Your task to perform on an android device: turn notification dots off Image 0: 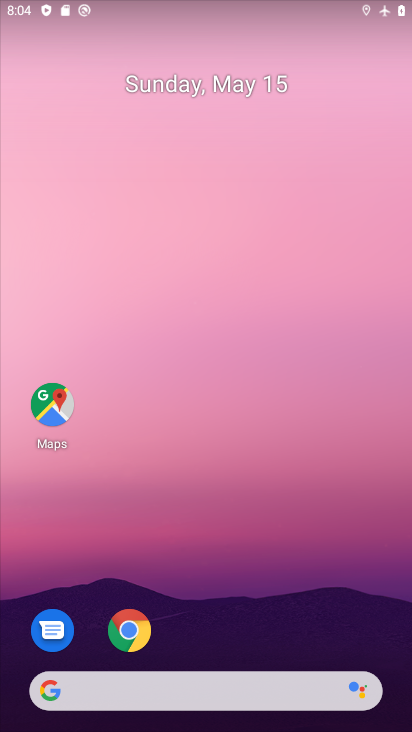
Step 0: drag from (228, 631) to (312, 104)
Your task to perform on an android device: turn notification dots off Image 1: 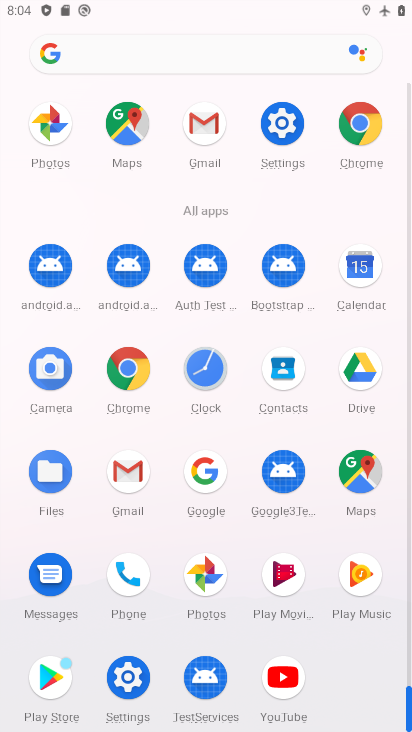
Step 1: click (126, 685)
Your task to perform on an android device: turn notification dots off Image 2: 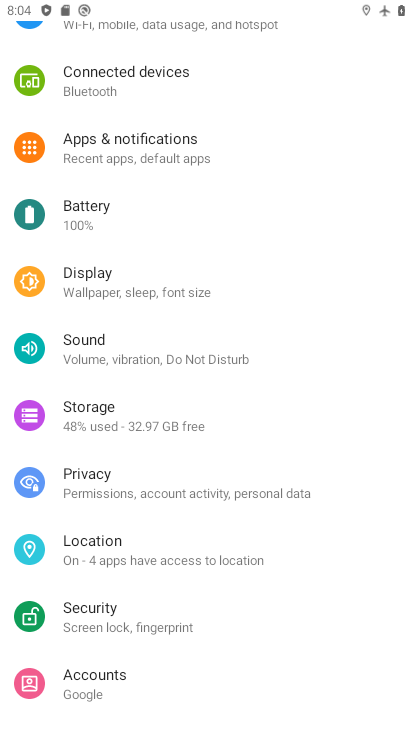
Step 2: click (141, 158)
Your task to perform on an android device: turn notification dots off Image 3: 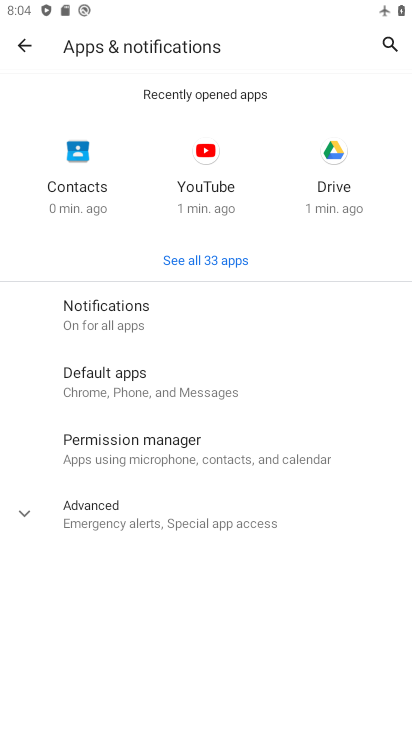
Step 3: click (118, 316)
Your task to perform on an android device: turn notification dots off Image 4: 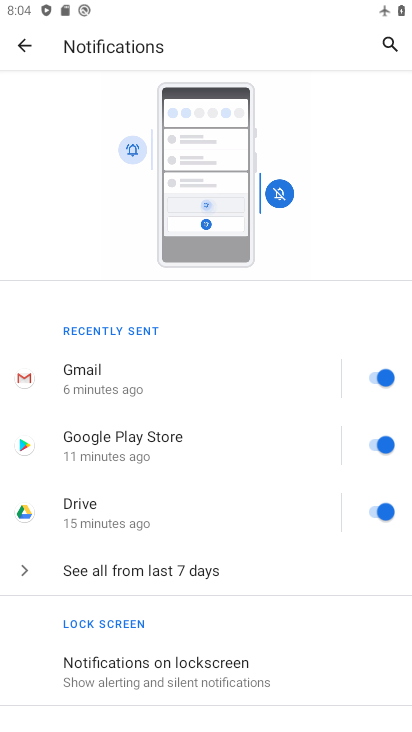
Step 4: drag from (147, 640) to (196, 322)
Your task to perform on an android device: turn notification dots off Image 5: 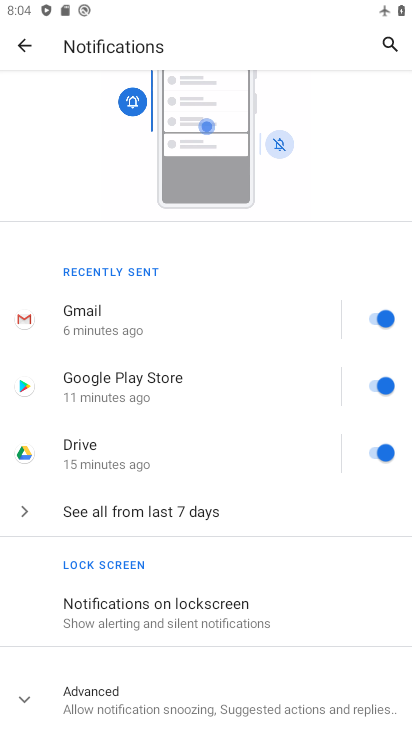
Step 5: click (97, 695)
Your task to perform on an android device: turn notification dots off Image 6: 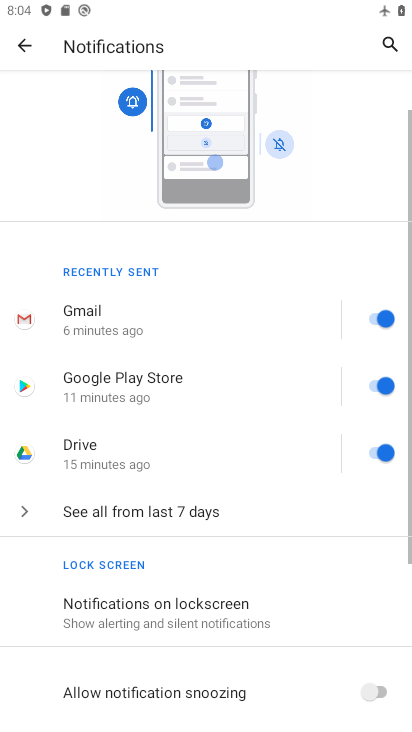
Step 6: drag from (165, 668) to (196, 275)
Your task to perform on an android device: turn notification dots off Image 7: 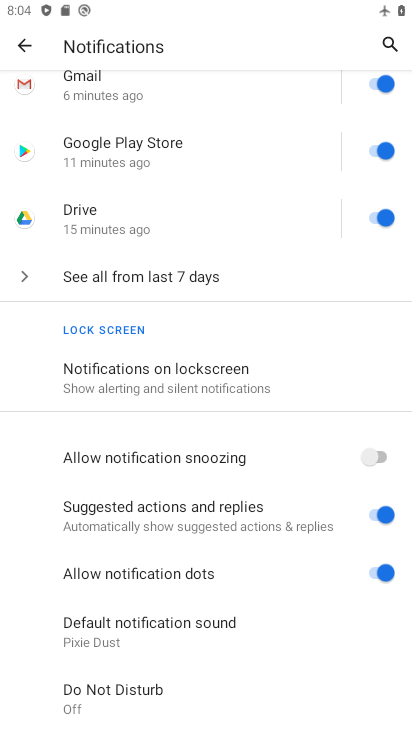
Step 7: click (362, 572)
Your task to perform on an android device: turn notification dots off Image 8: 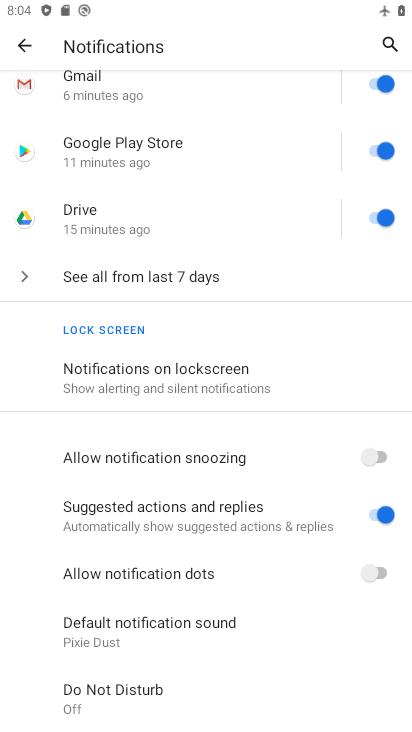
Step 8: task complete